Your task to perform on an android device: Add lenovo thinkpad to the cart on walmart.com, then select checkout. Image 0: 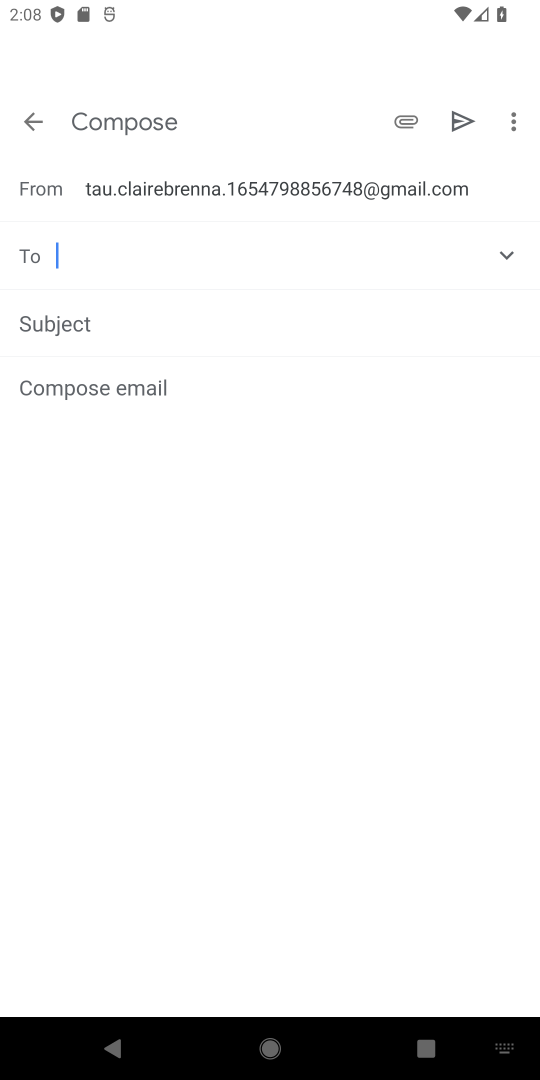
Step 0: press home button
Your task to perform on an android device: Add lenovo thinkpad to the cart on walmart.com, then select checkout. Image 1: 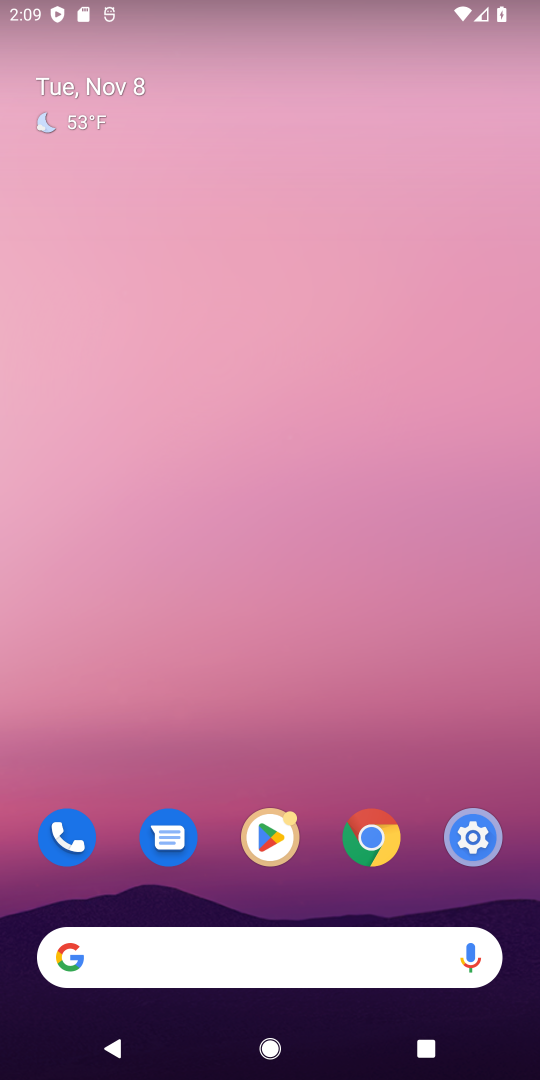
Step 1: click (366, 852)
Your task to perform on an android device: Add lenovo thinkpad to the cart on walmart.com, then select checkout. Image 2: 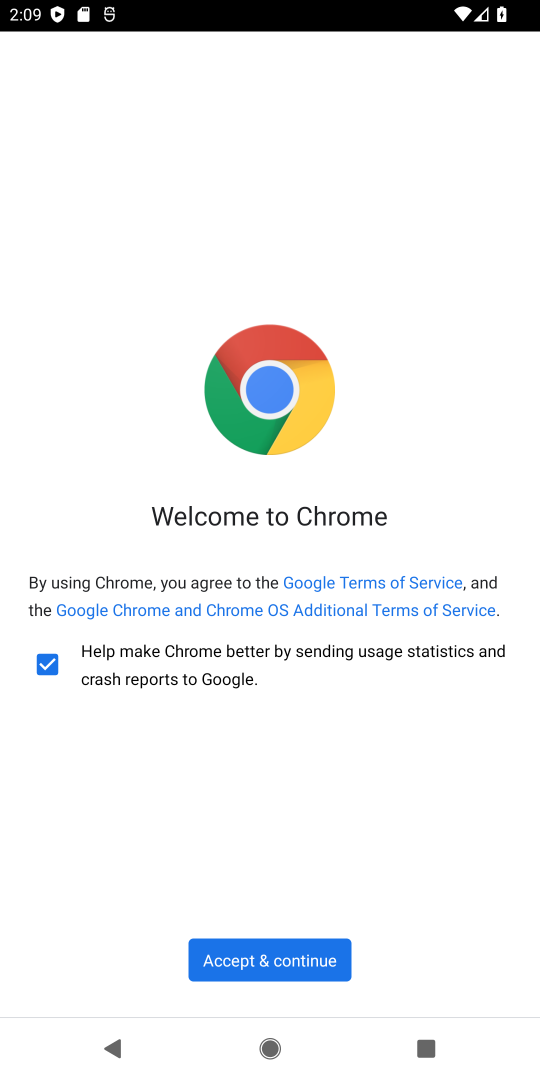
Step 2: click (288, 965)
Your task to perform on an android device: Add lenovo thinkpad to the cart on walmart.com, then select checkout. Image 3: 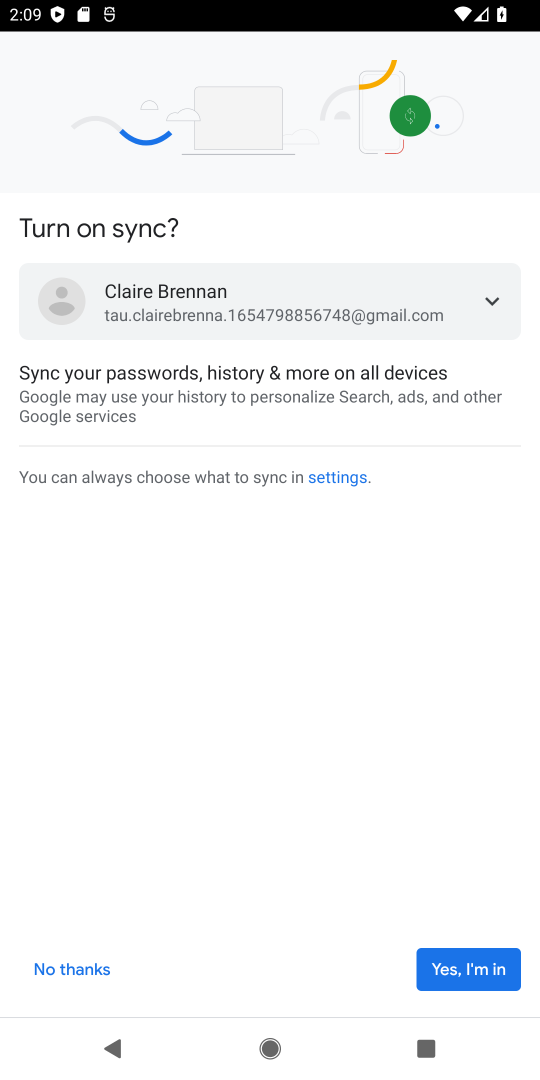
Step 3: click (440, 977)
Your task to perform on an android device: Add lenovo thinkpad to the cart on walmart.com, then select checkout. Image 4: 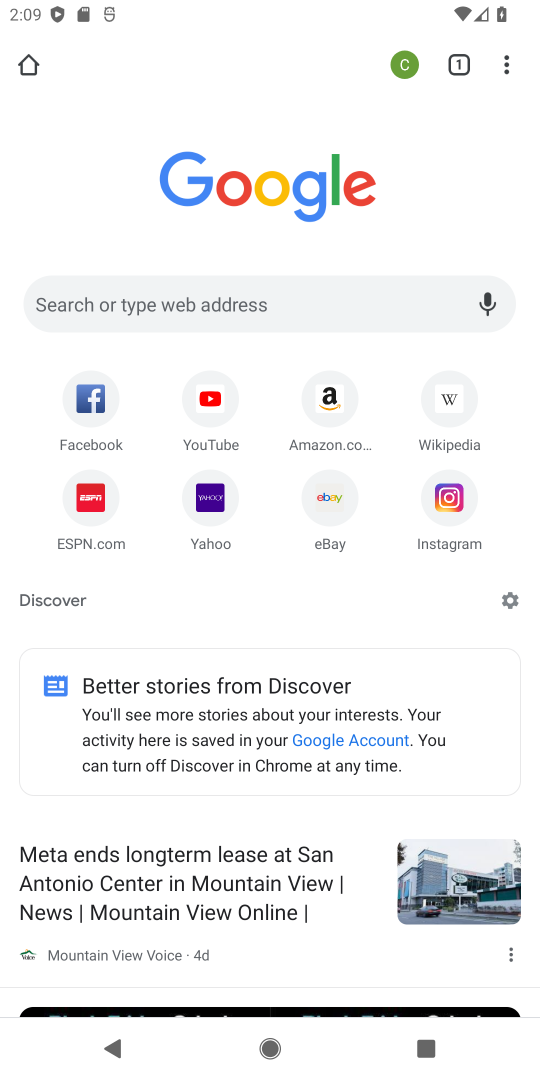
Step 4: click (157, 313)
Your task to perform on an android device: Add lenovo thinkpad to the cart on walmart.com, then select checkout. Image 5: 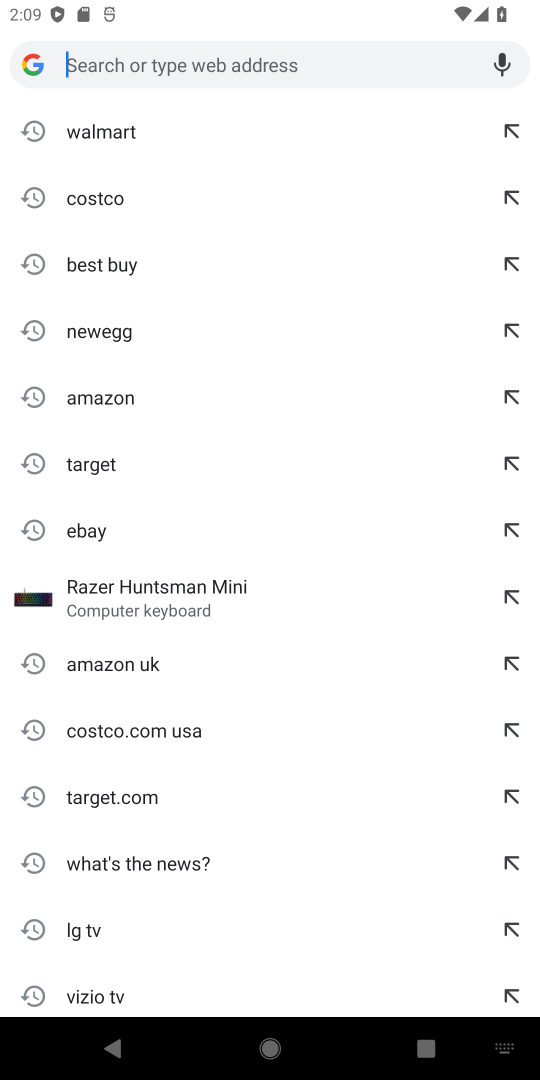
Step 5: type "walmart"
Your task to perform on an android device: Add lenovo thinkpad to the cart on walmart.com, then select checkout. Image 6: 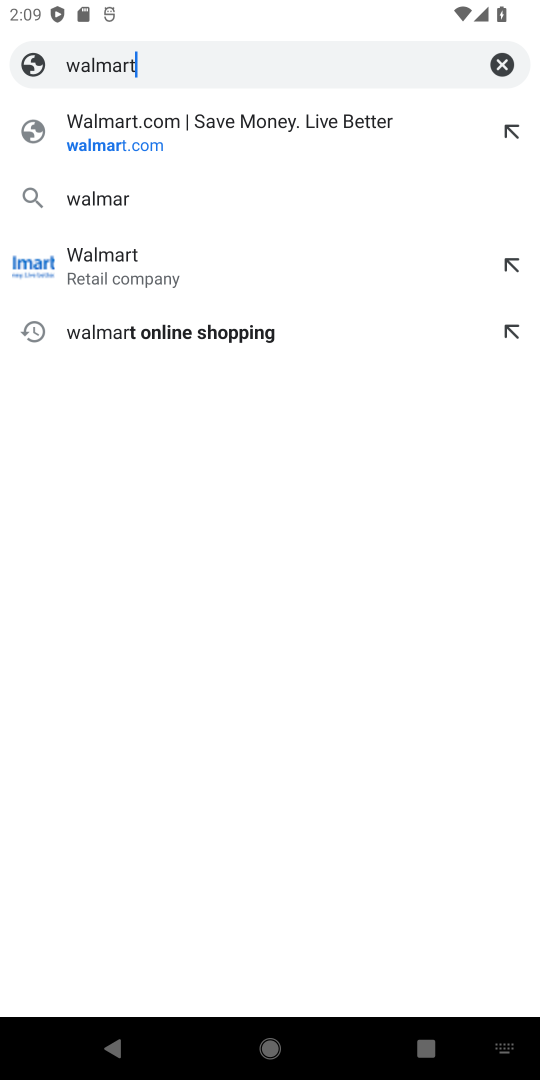
Step 6: type ""
Your task to perform on an android device: Add lenovo thinkpad to the cart on walmart.com, then select checkout. Image 7: 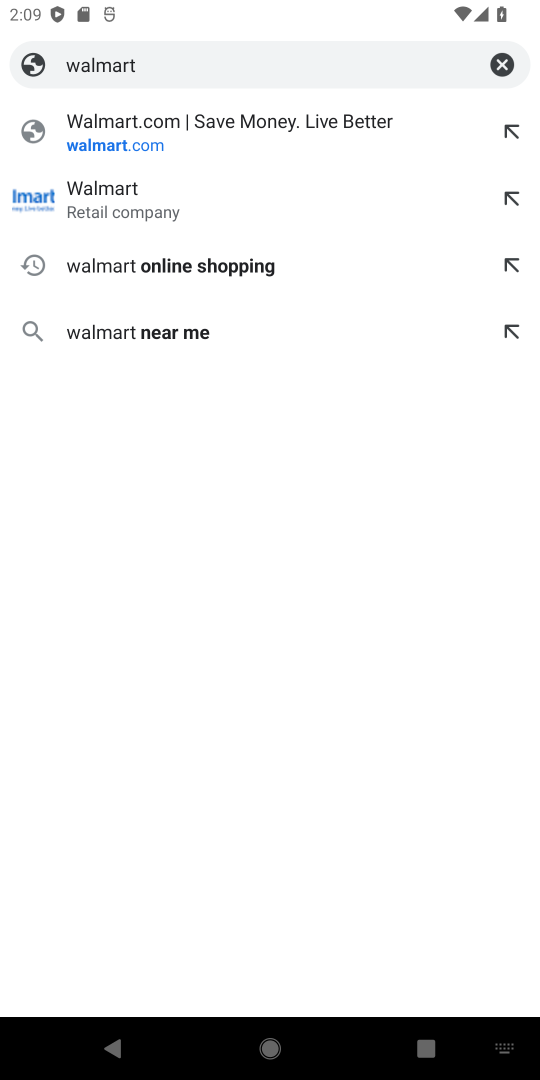
Step 7: click (136, 136)
Your task to perform on an android device: Add lenovo thinkpad to the cart on walmart.com, then select checkout. Image 8: 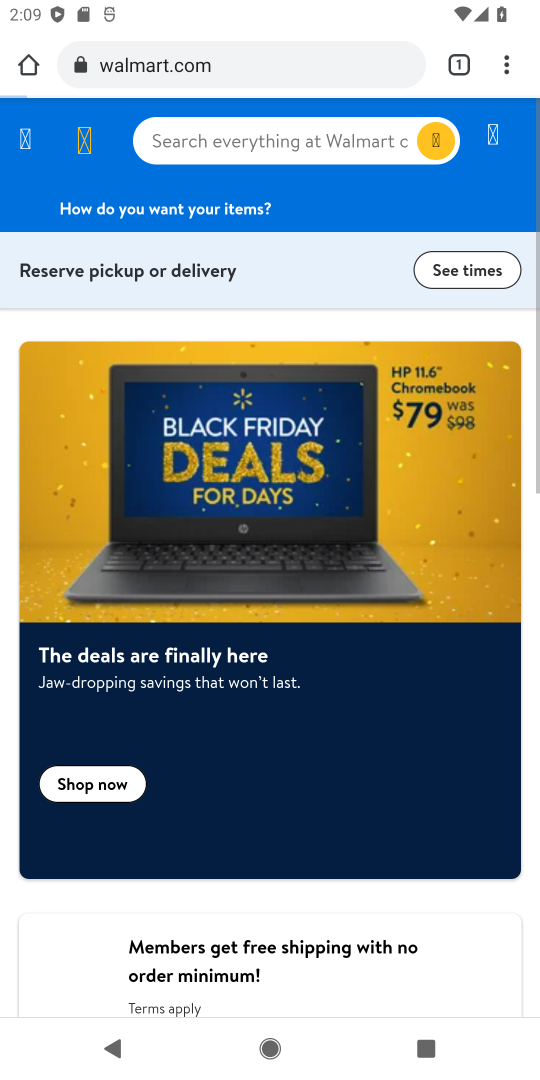
Step 8: click (241, 136)
Your task to perform on an android device: Add lenovo thinkpad to the cart on walmart.com, then select checkout. Image 9: 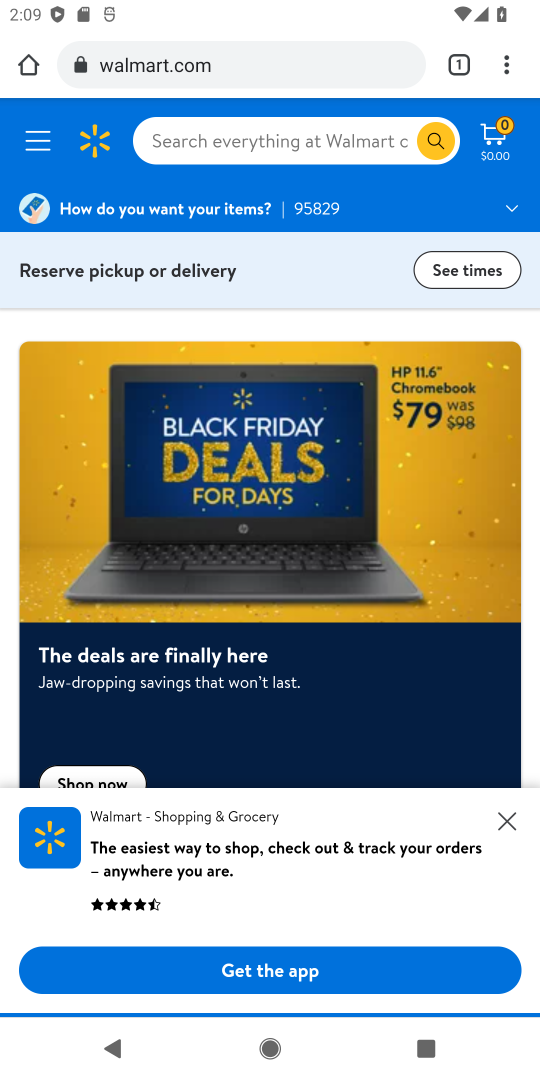
Step 9: click (238, 133)
Your task to perform on an android device: Add lenovo thinkpad to the cart on walmart.com, then select checkout. Image 10: 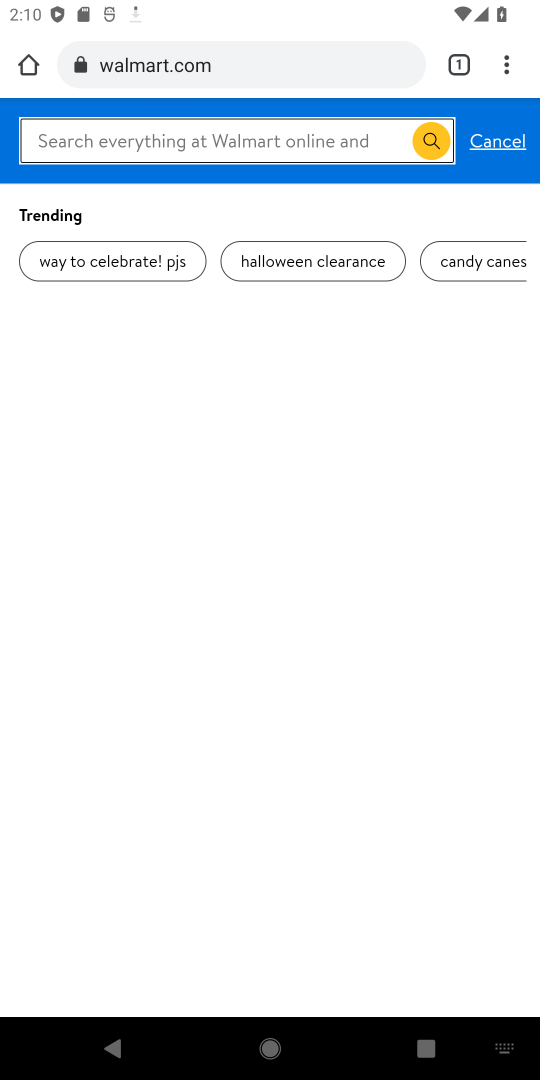
Step 10: type "lenovo thinkpad"
Your task to perform on an android device: Add lenovo thinkpad to the cart on walmart.com, then select checkout. Image 11: 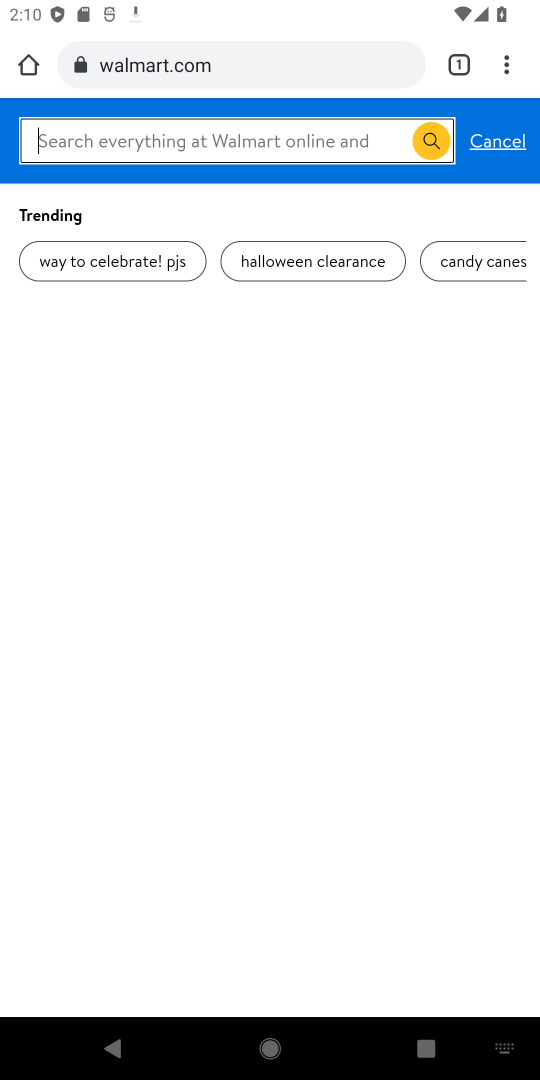
Step 11: type ""
Your task to perform on an android device: Add lenovo thinkpad to the cart on walmart.com, then select checkout. Image 12: 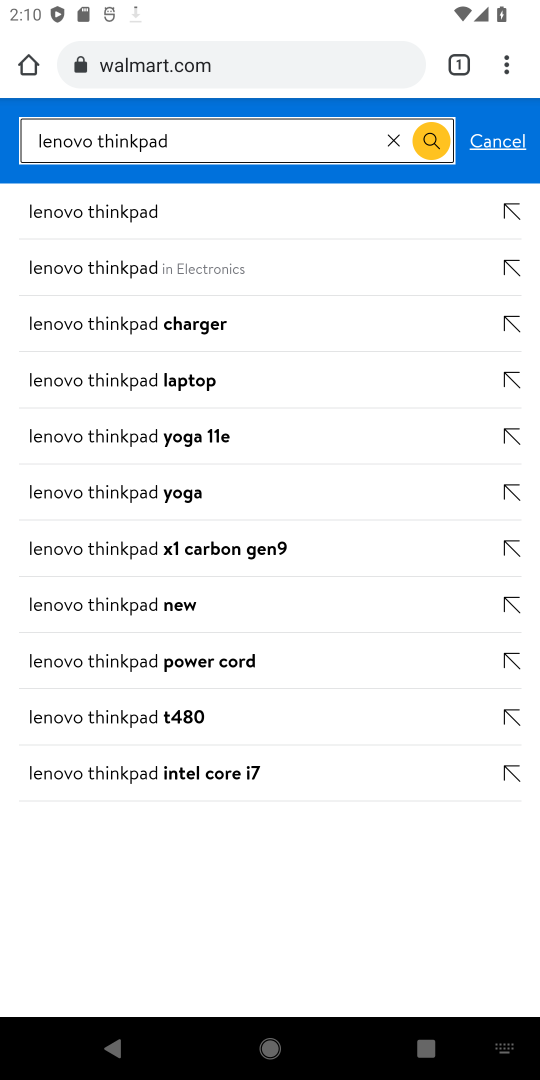
Step 12: click (128, 209)
Your task to perform on an android device: Add lenovo thinkpad to the cart on walmart.com, then select checkout. Image 13: 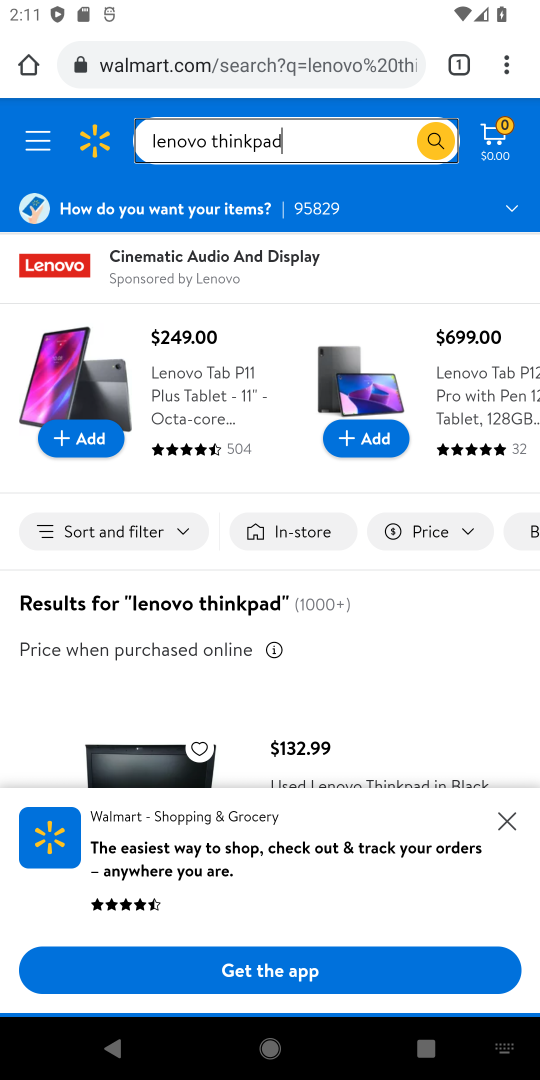
Step 13: click (501, 819)
Your task to perform on an android device: Add lenovo thinkpad to the cart on walmart.com, then select checkout. Image 14: 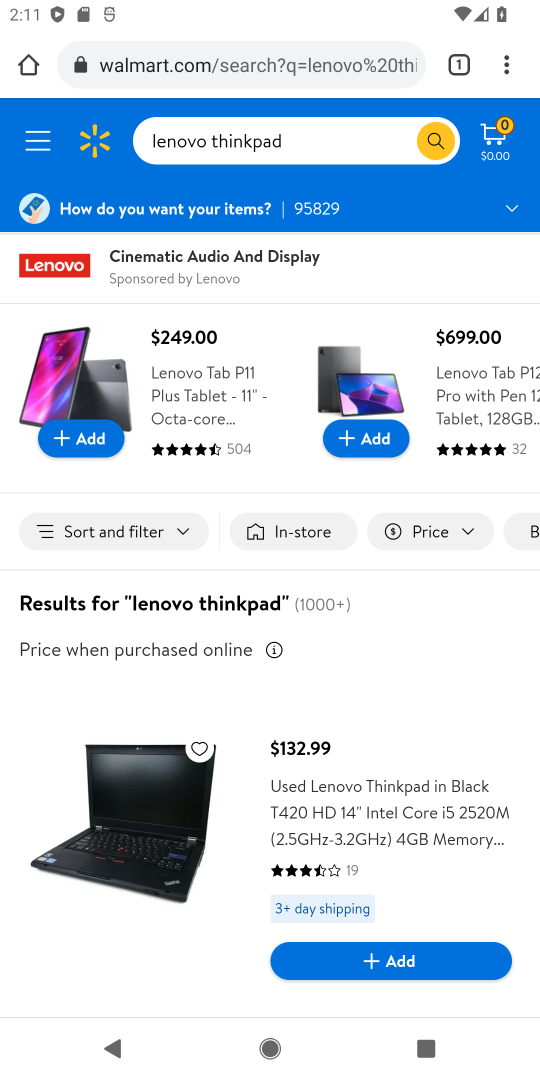
Step 14: drag from (367, 656) to (215, 65)
Your task to perform on an android device: Add lenovo thinkpad to the cart on walmart.com, then select checkout. Image 15: 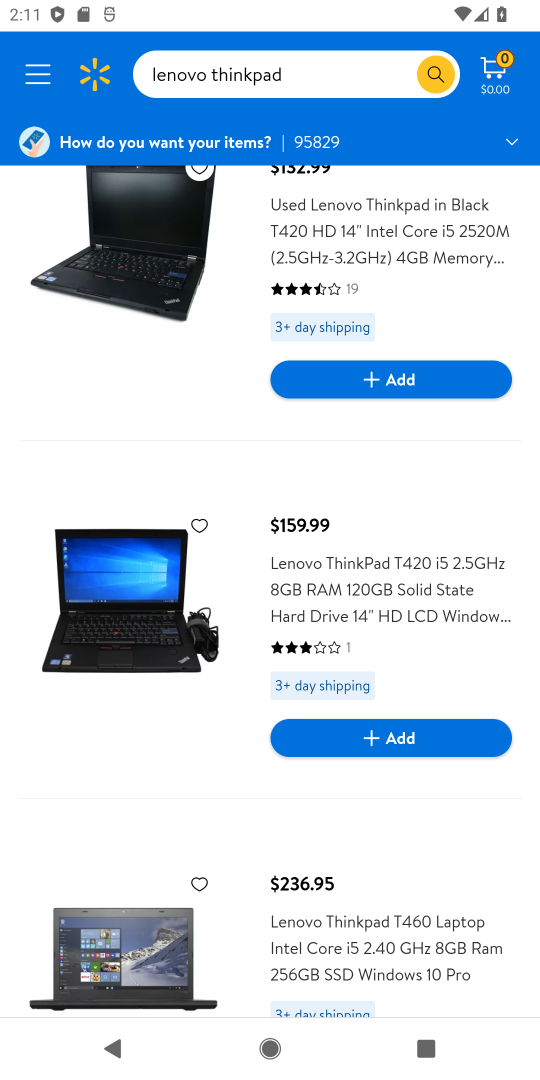
Step 15: click (337, 575)
Your task to perform on an android device: Add lenovo thinkpad to the cart on walmart.com, then select checkout. Image 16: 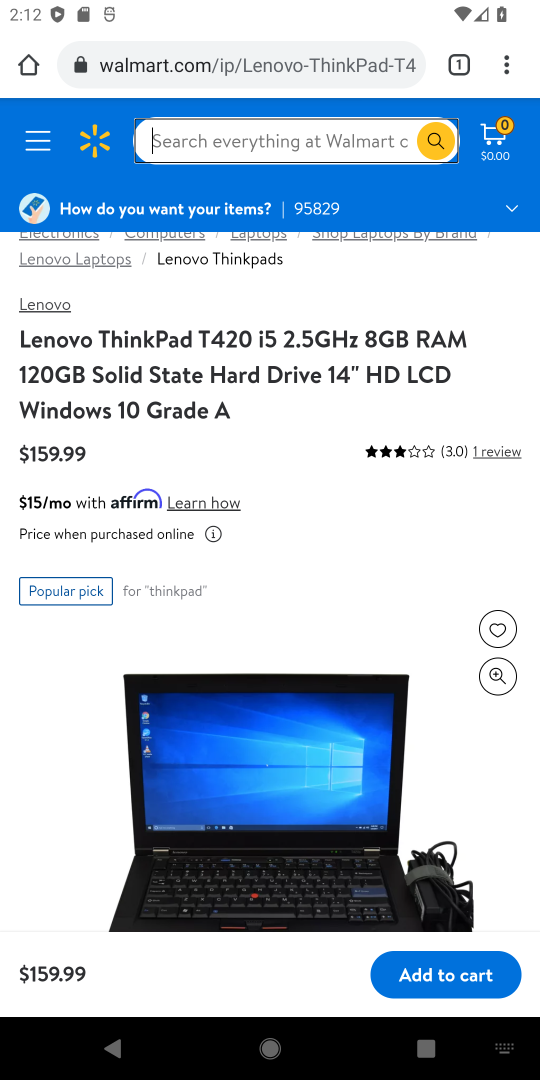
Step 16: drag from (248, 596) to (157, 169)
Your task to perform on an android device: Add lenovo thinkpad to the cart on walmart.com, then select checkout. Image 17: 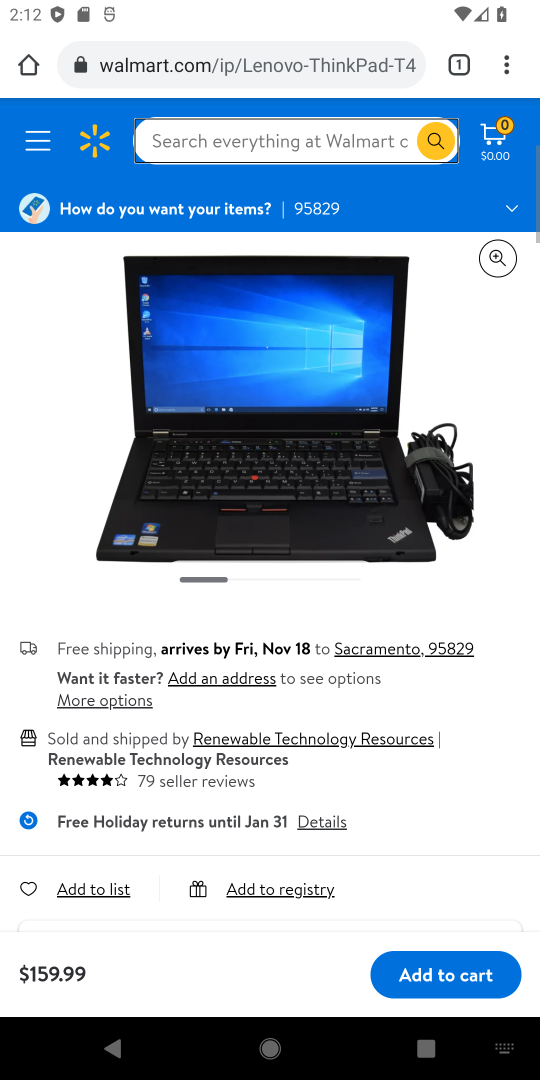
Step 17: drag from (202, 795) to (192, 500)
Your task to perform on an android device: Add lenovo thinkpad to the cart on walmart.com, then select checkout. Image 18: 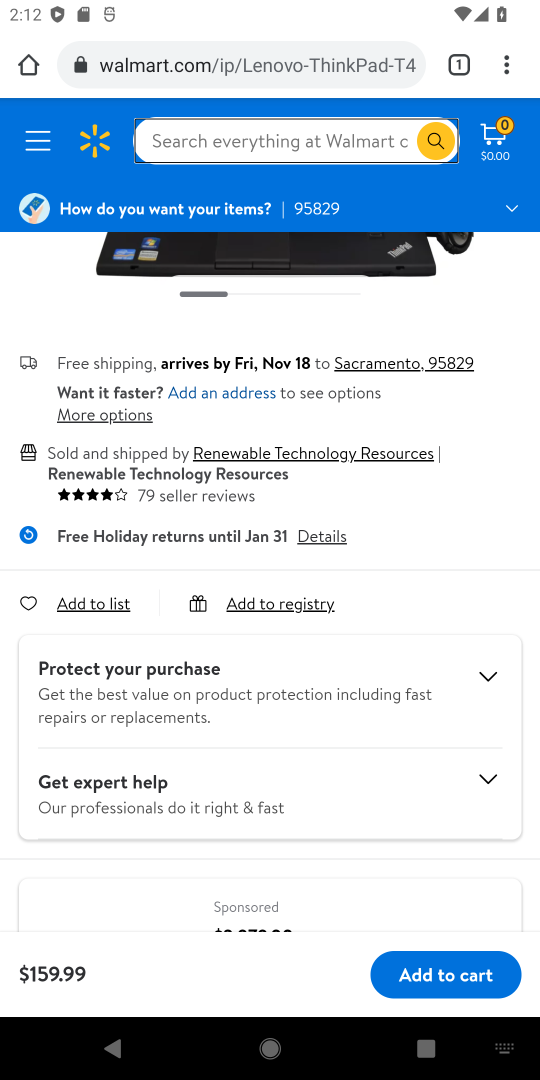
Step 18: drag from (238, 785) to (250, 449)
Your task to perform on an android device: Add lenovo thinkpad to the cart on walmart.com, then select checkout. Image 19: 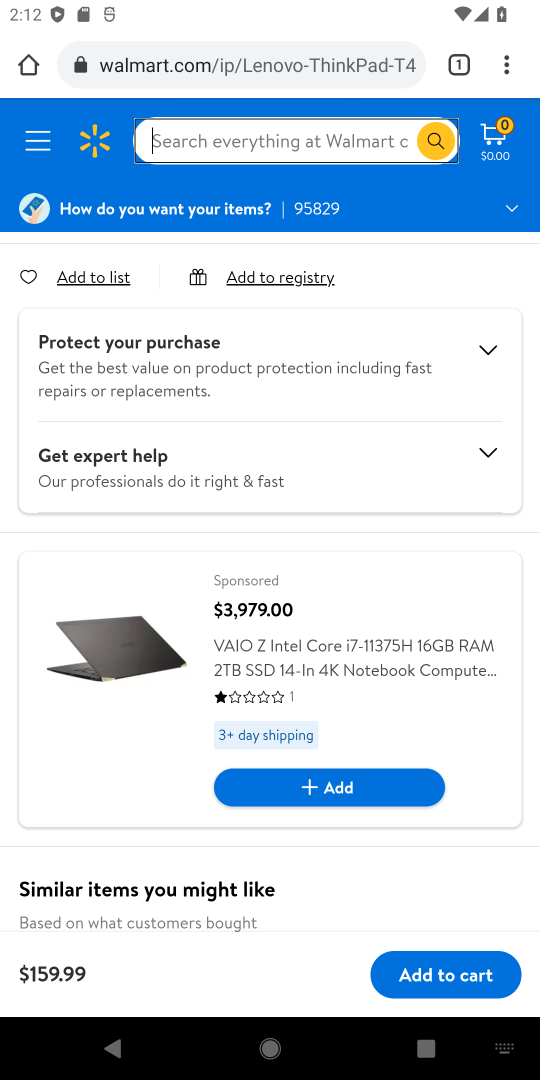
Step 19: drag from (336, 672) to (253, 406)
Your task to perform on an android device: Add lenovo thinkpad to the cart on walmart.com, then select checkout. Image 20: 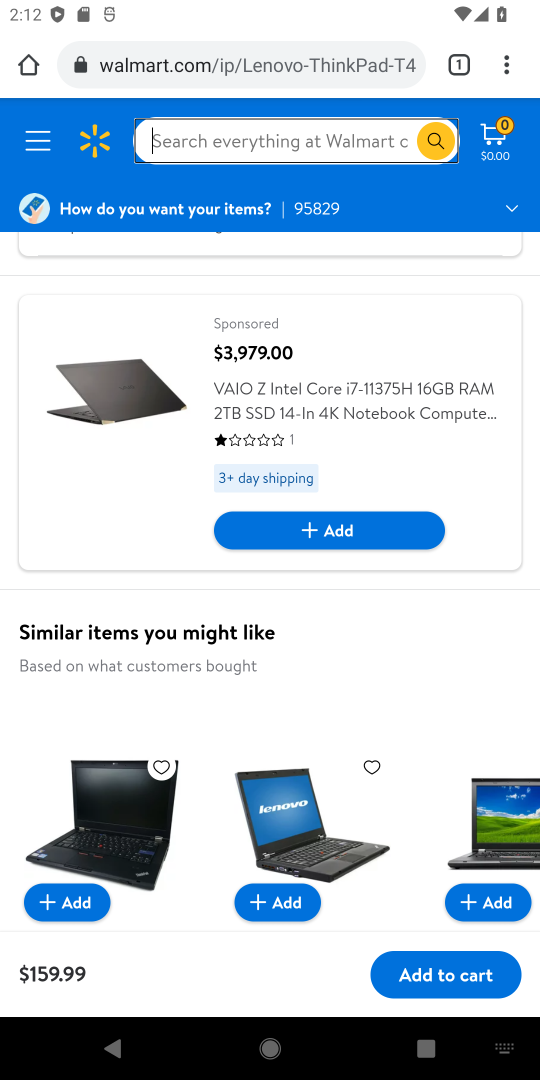
Step 20: drag from (308, 712) to (363, 739)
Your task to perform on an android device: Add lenovo thinkpad to the cart on walmart.com, then select checkout. Image 21: 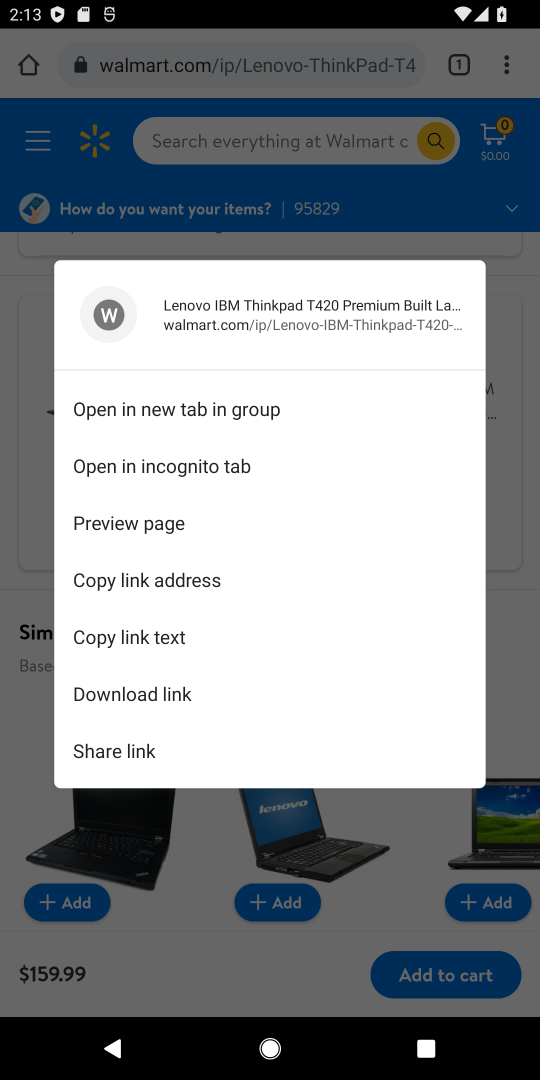
Step 21: click (10, 489)
Your task to perform on an android device: Add lenovo thinkpad to the cart on walmart.com, then select checkout. Image 22: 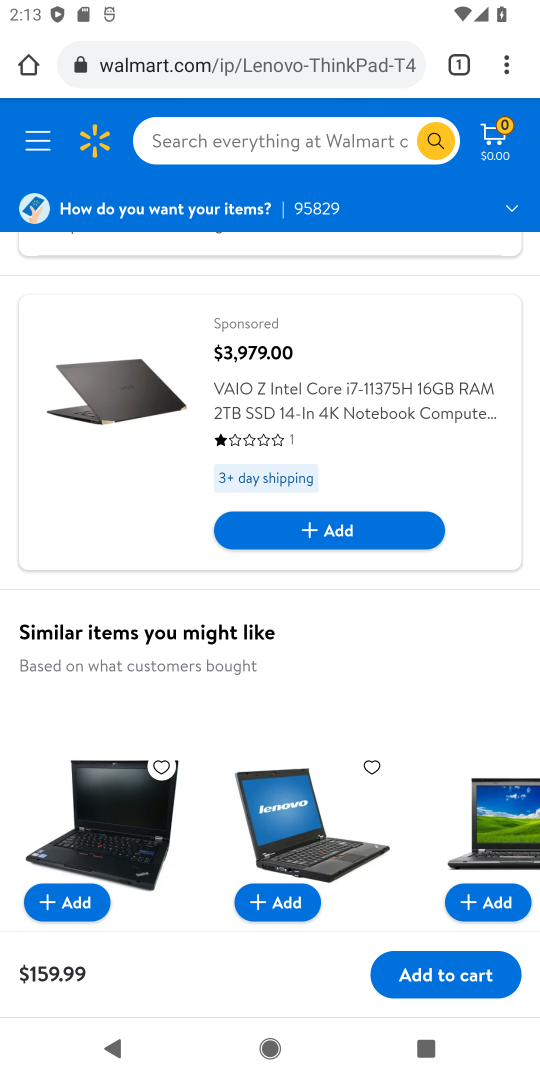
Step 22: drag from (390, 418) to (339, 843)
Your task to perform on an android device: Add lenovo thinkpad to the cart on walmart.com, then select checkout. Image 23: 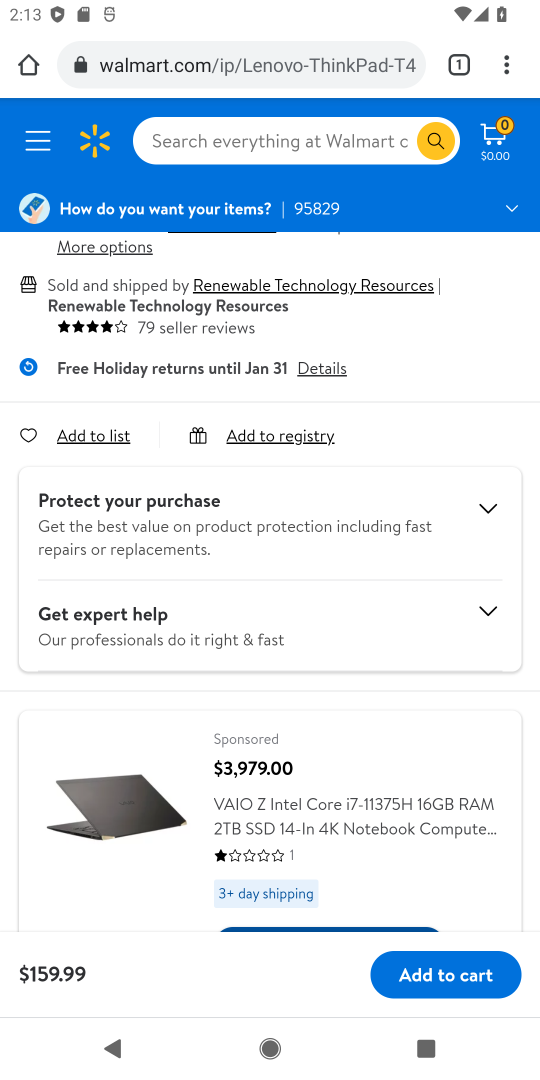
Step 23: drag from (314, 528) to (282, 881)
Your task to perform on an android device: Add lenovo thinkpad to the cart on walmart.com, then select checkout. Image 24: 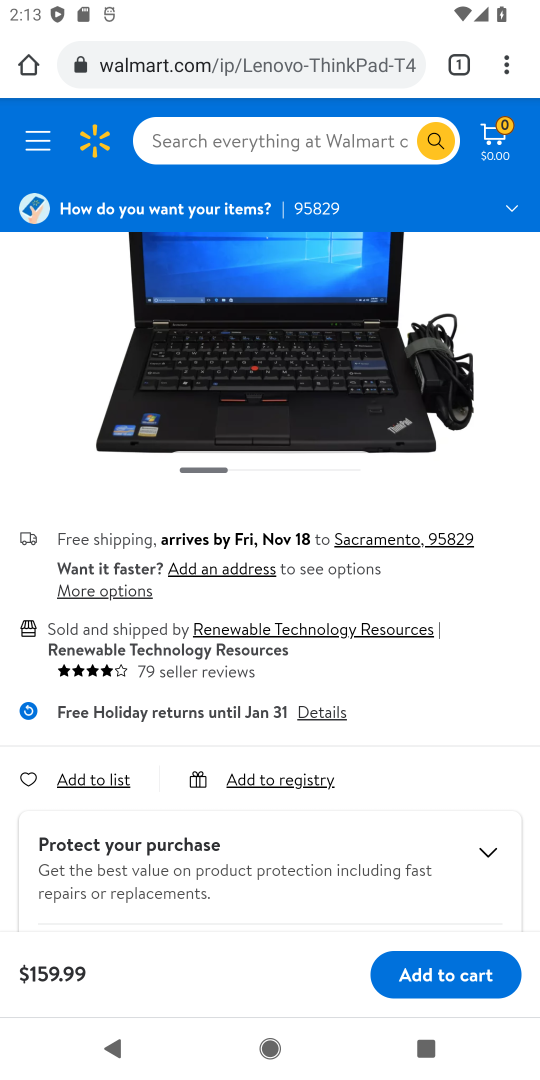
Step 24: click (457, 978)
Your task to perform on an android device: Add lenovo thinkpad to the cart on walmart.com, then select checkout. Image 25: 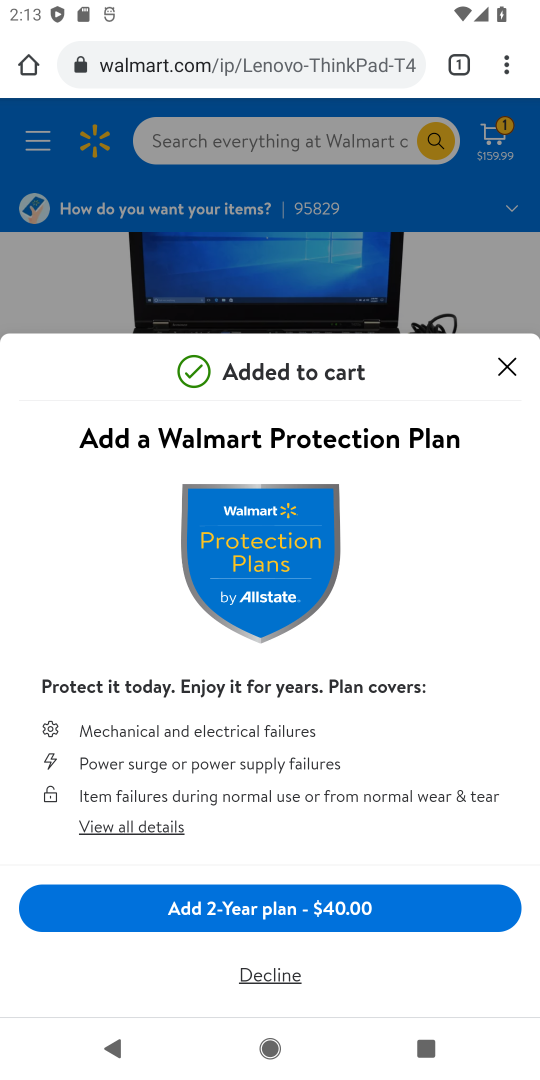
Step 25: click (502, 363)
Your task to perform on an android device: Add lenovo thinkpad to the cart on walmart.com, then select checkout. Image 26: 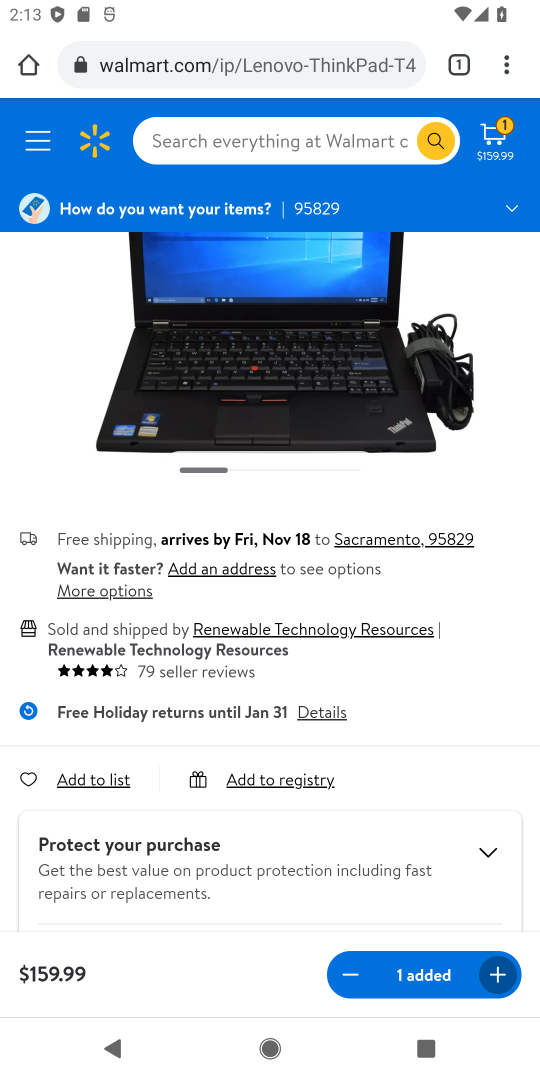
Step 26: drag from (188, 846) to (236, 167)
Your task to perform on an android device: Add lenovo thinkpad to the cart on walmart.com, then select checkout. Image 27: 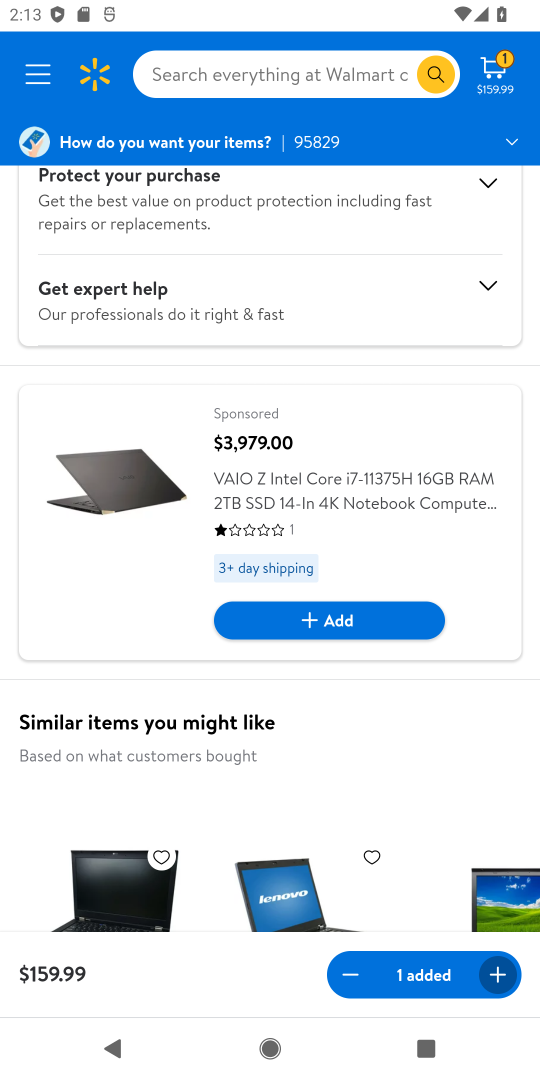
Step 27: click (487, 68)
Your task to perform on an android device: Add lenovo thinkpad to the cart on walmart.com, then select checkout. Image 28: 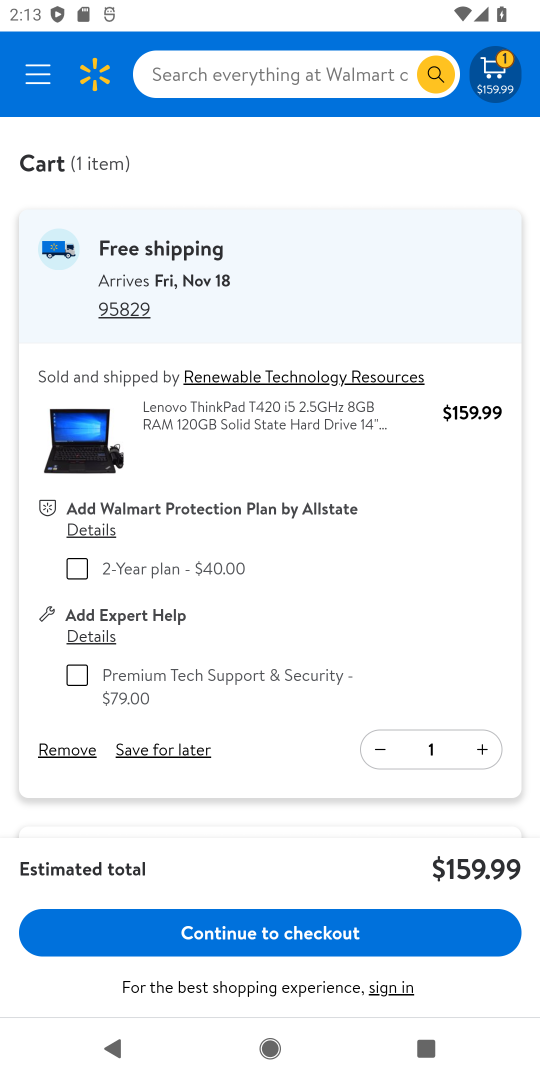
Step 28: click (331, 929)
Your task to perform on an android device: Add lenovo thinkpad to the cart on walmart.com, then select checkout. Image 29: 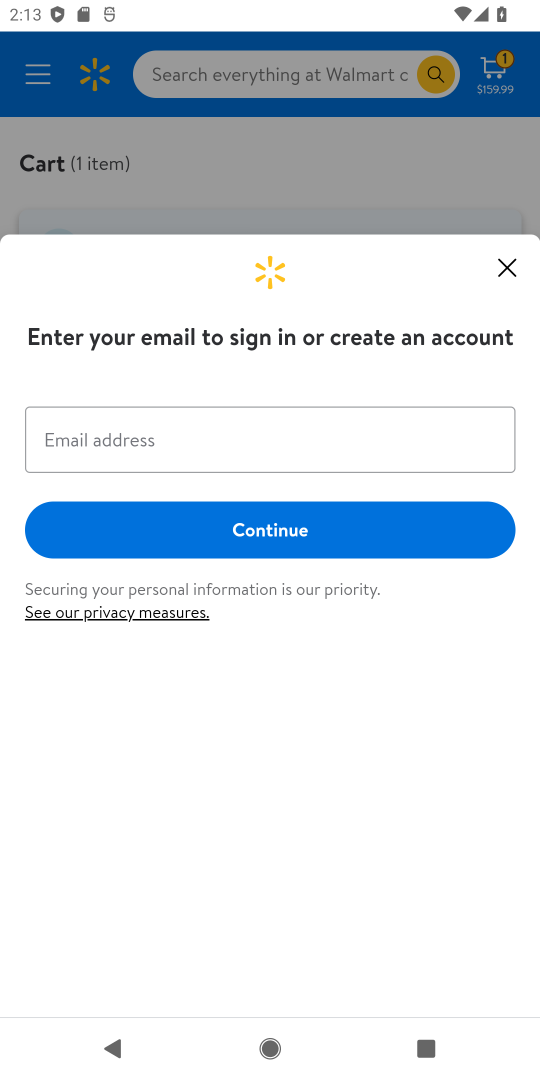
Step 29: click (504, 269)
Your task to perform on an android device: Add lenovo thinkpad to the cart on walmart.com, then select checkout. Image 30: 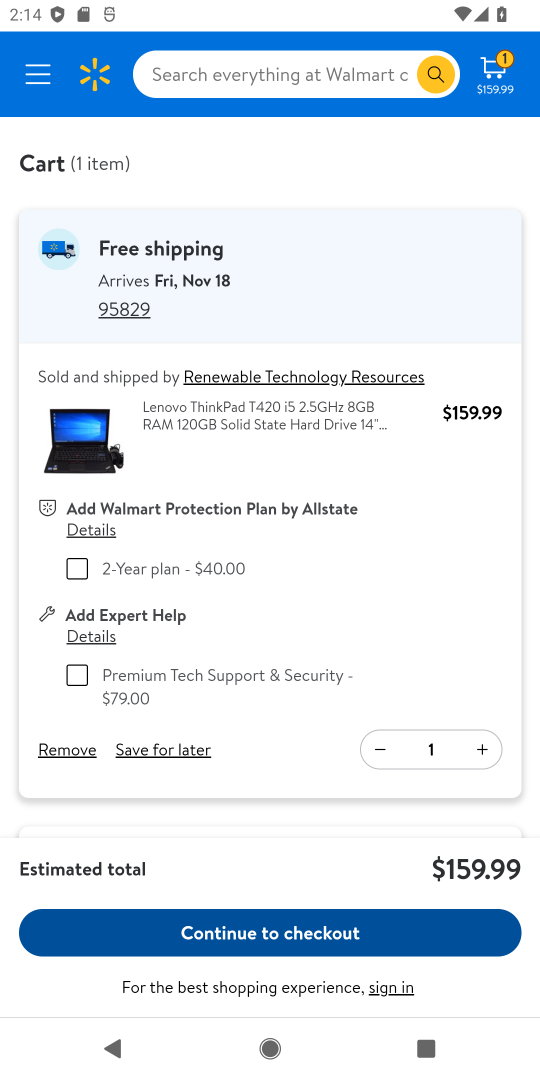
Step 30: click (259, 934)
Your task to perform on an android device: Add lenovo thinkpad to the cart on walmart.com, then select checkout. Image 31: 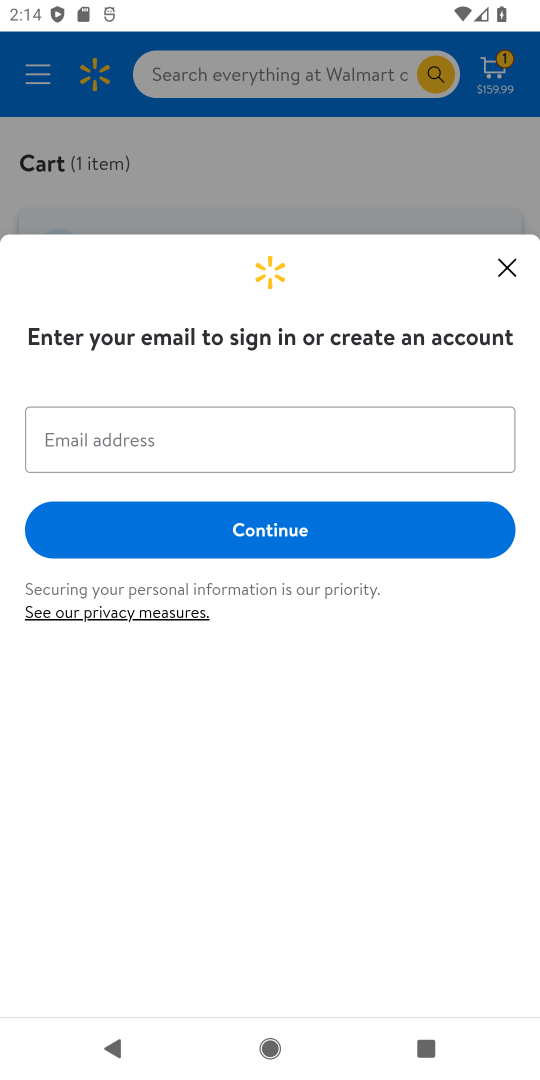
Step 31: task complete